Your task to perform on an android device: Play the last video I watched on Youtube Image 0: 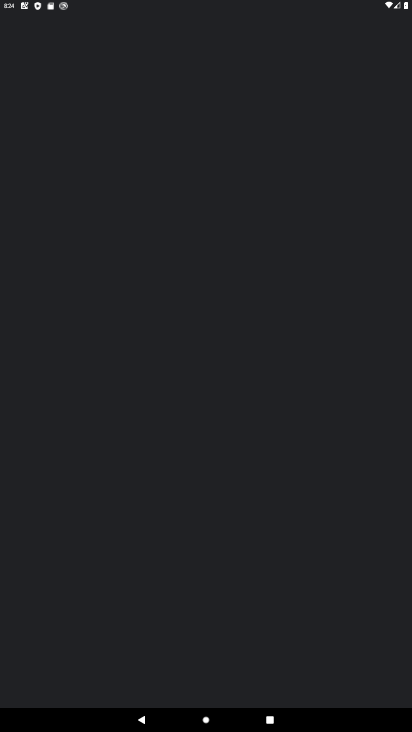
Step 0: click (401, 51)
Your task to perform on an android device: Play the last video I watched on Youtube Image 1: 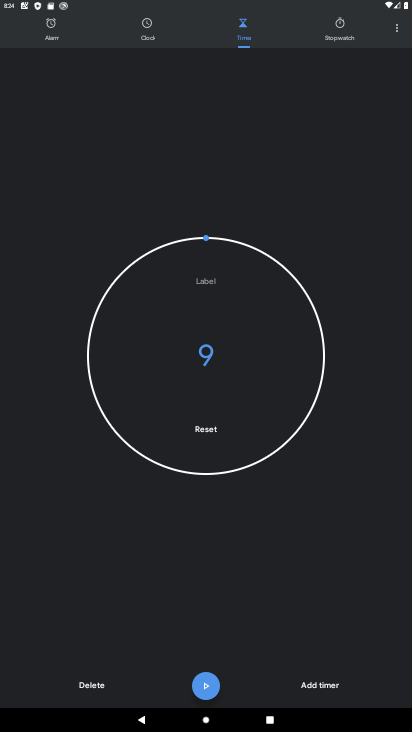
Step 1: press home button
Your task to perform on an android device: Play the last video I watched on Youtube Image 2: 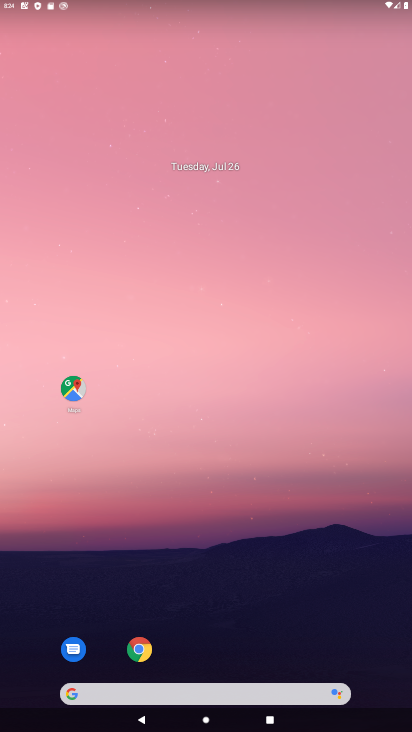
Step 2: drag from (211, 631) to (257, 135)
Your task to perform on an android device: Play the last video I watched on Youtube Image 3: 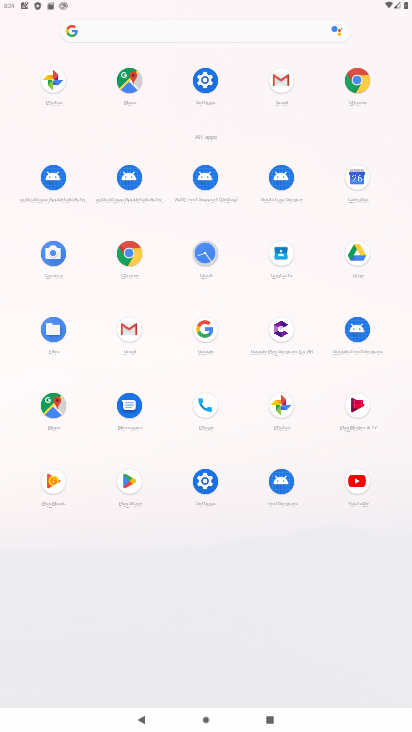
Step 3: click (362, 472)
Your task to perform on an android device: Play the last video I watched on Youtube Image 4: 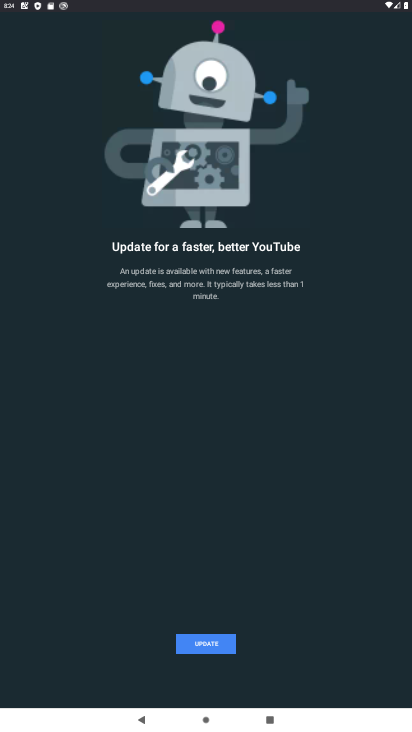
Step 4: click (208, 648)
Your task to perform on an android device: Play the last video I watched on Youtube Image 5: 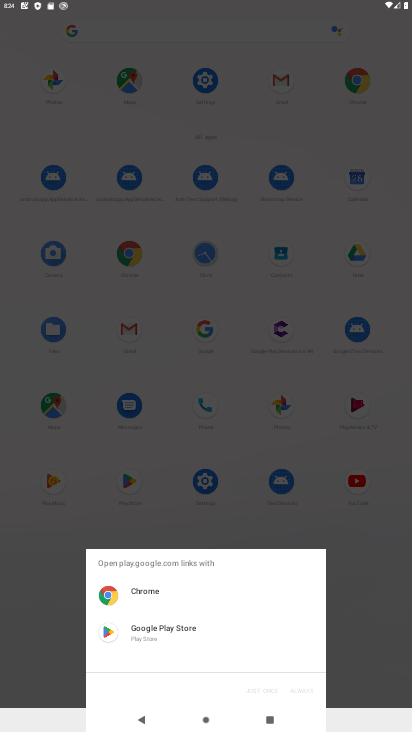
Step 5: click (207, 640)
Your task to perform on an android device: Play the last video I watched on Youtube Image 6: 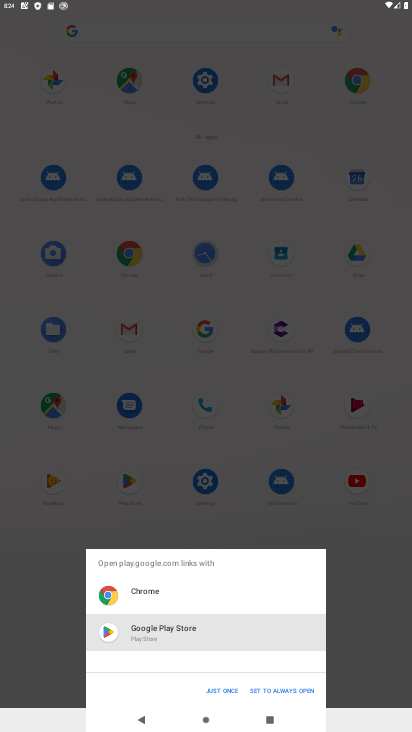
Step 6: click (218, 686)
Your task to perform on an android device: Play the last video I watched on Youtube Image 7: 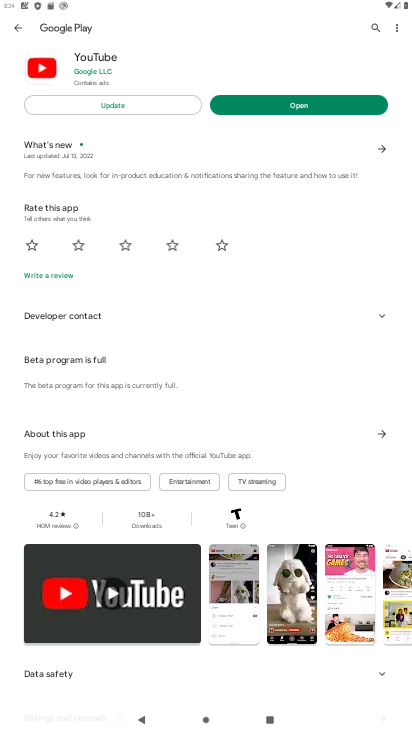
Step 7: click (126, 96)
Your task to perform on an android device: Play the last video I watched on Youtube Image 8: 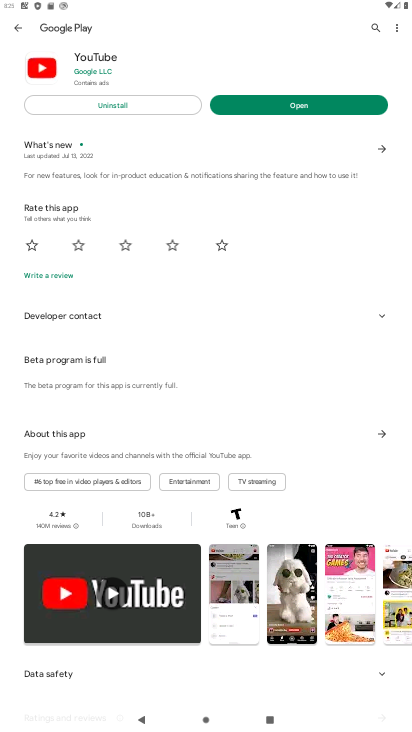
Step 8: click (263, 102)
Your task to perform on an android device: Play the last video I watched on Youtube Image 9: 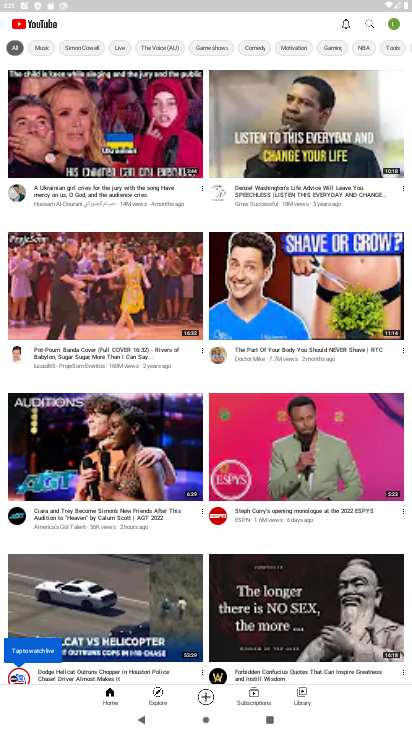
Step 9: click (301, 698)
Your task to perform on an android device: Play the last video I watched on Youtube Image 10: 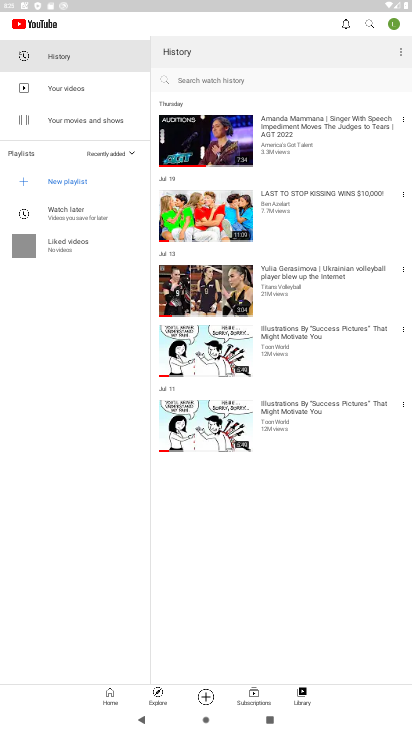
Step 10: click (199, 117)
Your task to perform on an android device: Play the last video I watched on Youtube Image 11: 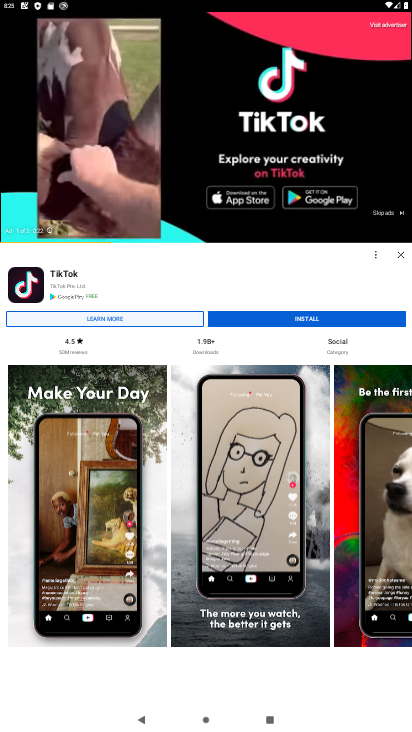
Step 11: click (381, 218)
Your task to perform on an android device: Play the last video I watched on Youtube Image 12: 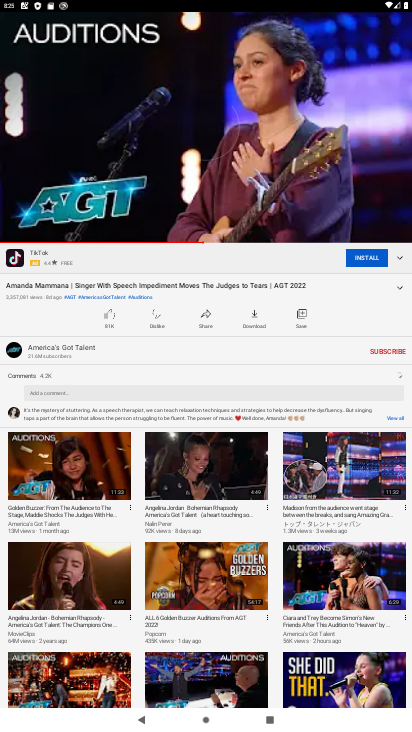
Step 12: click (381, 218)
Your task to perform on an android device: Play the last video I watched on Youtube Image 13: 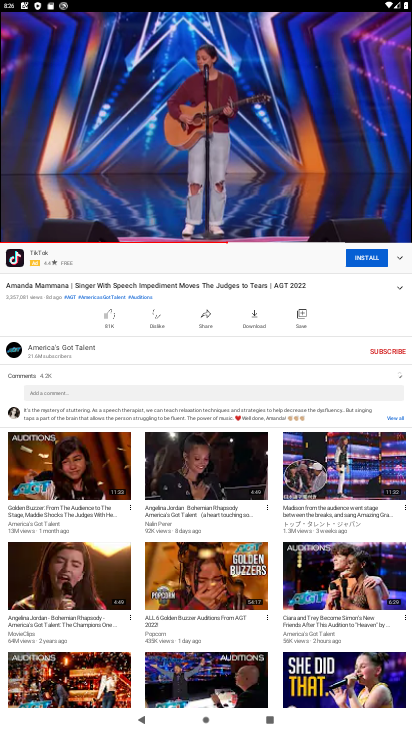
Step 13: task complete